Your task to perform on an android device: move an email to a new category in the gmail app Image 0: 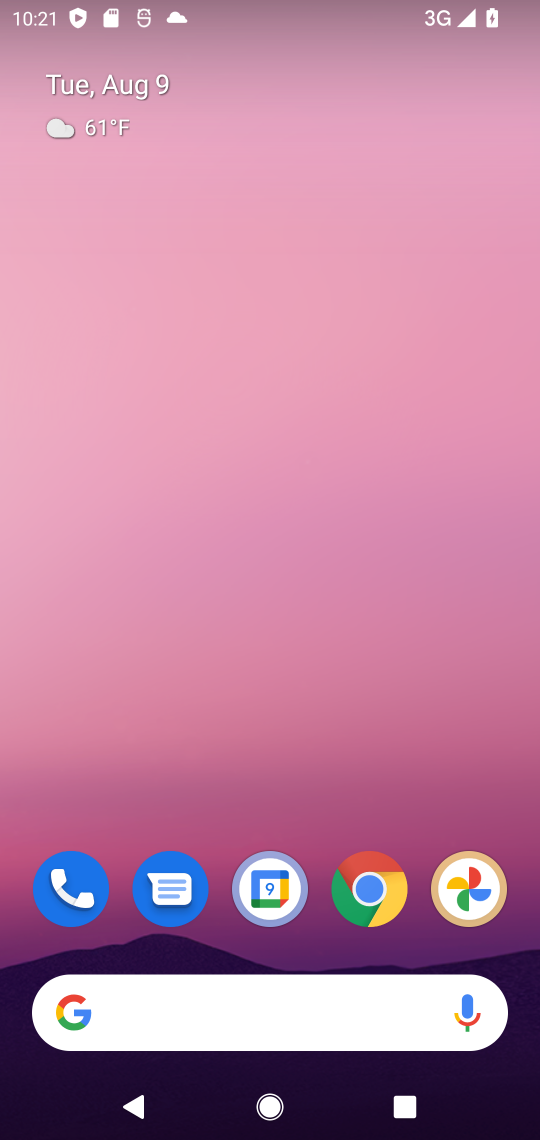
Step 0: drag from (250, 725) to (316, 18)
Your task to perform on an android device: move an email to a new category in the gmail app Image 1: 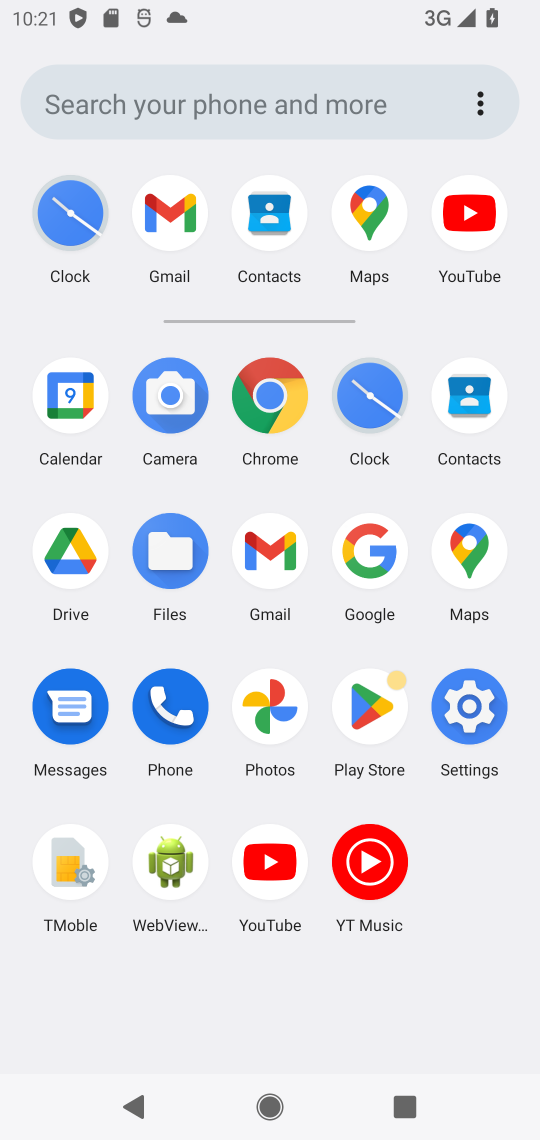
Step 1: click (160, 217)
Your task to perform on an android device: move an email to a new category in the gmail app Image 2: 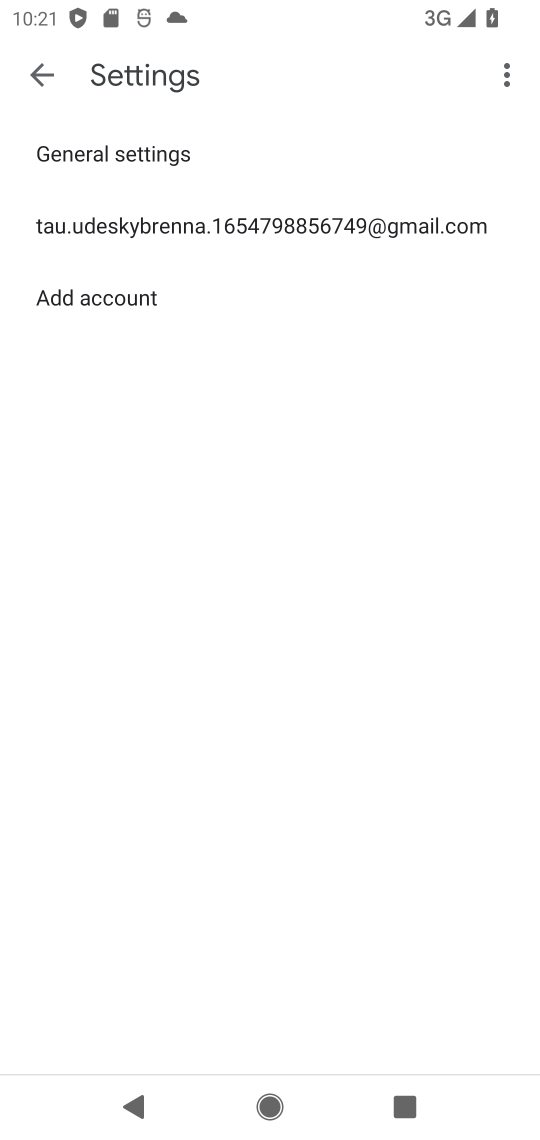
Step 2: click (30, 71)
Your task to perform on an android device: move an email to a new category in the gmail app Image 3: 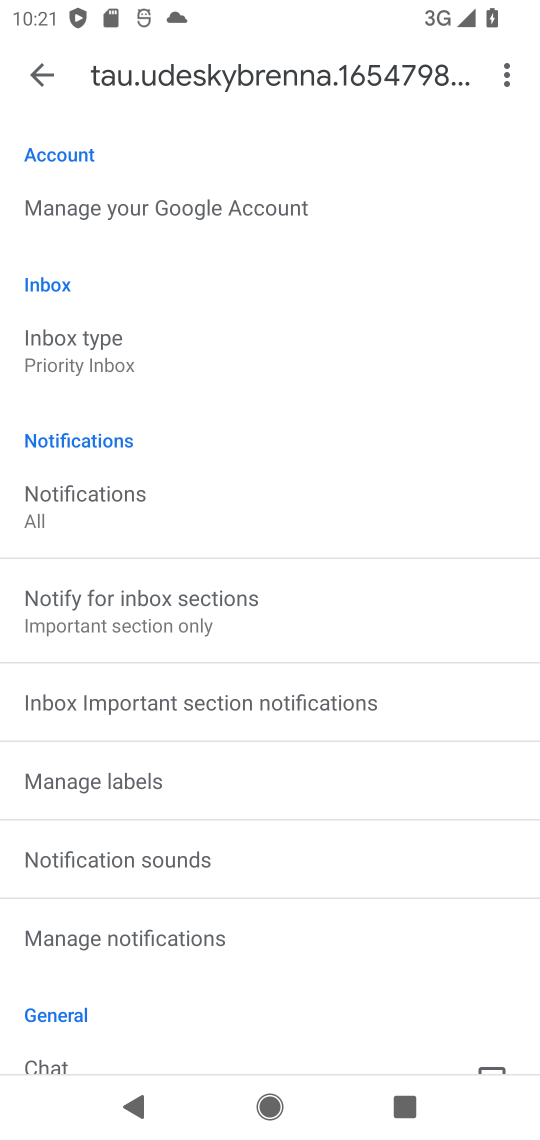
Step 3: click (30, 72)
Your task to perform on an android device: move an email to a new category in the gmail app Image 4: 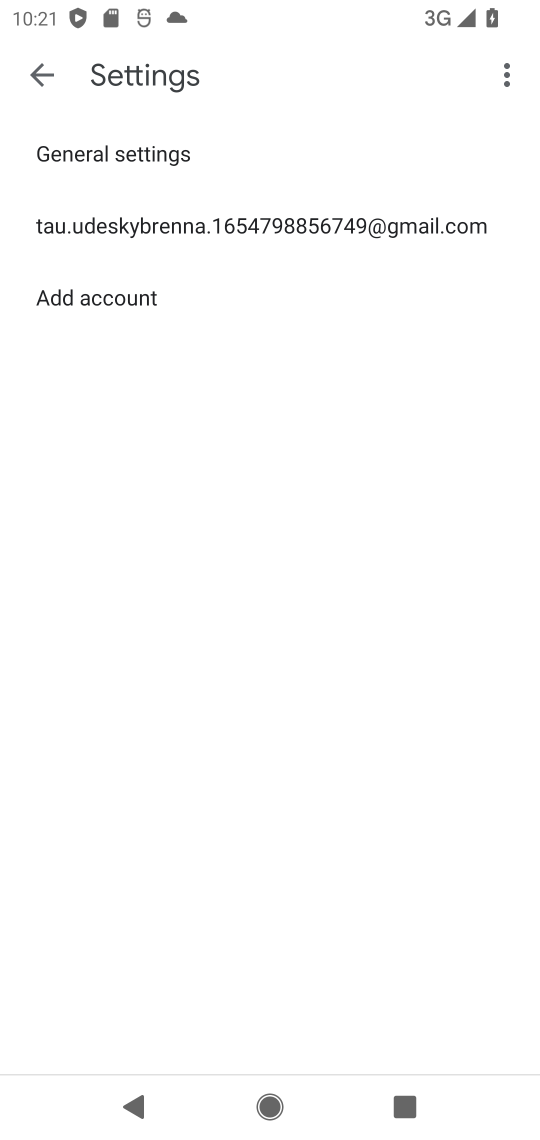
Step 4: click (30, 72)
Your task to perform on an android device: move an email to a new category in the gmail app Image 5: 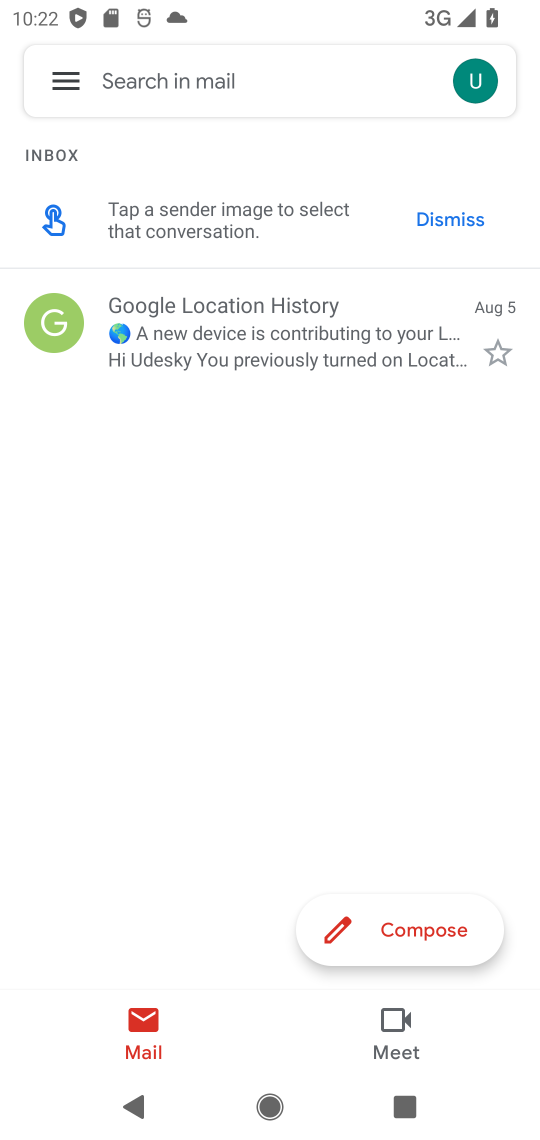
Step 5: click (493, 353)
Your task to perform on an android device: move an email to a new category in the gmail app Image 6: 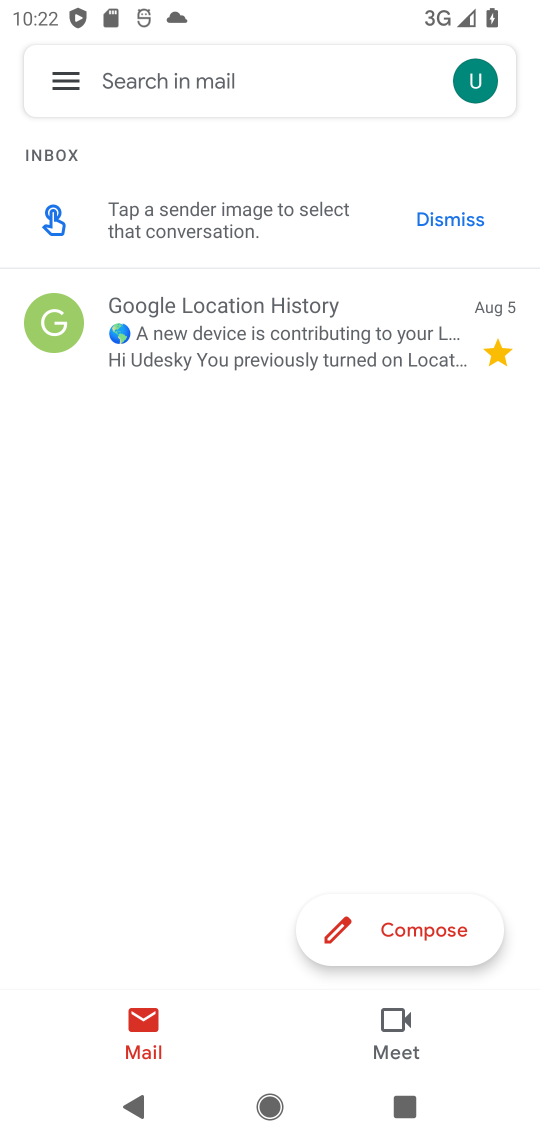
Step 6: task complete